Your task to perform on an android device: Open the calendar and show me this week's events? Image 0: 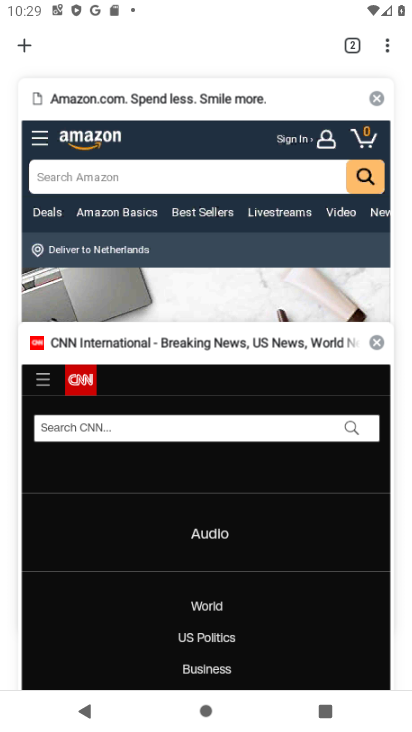
Step 0: press home button
Your task to perform on an android device: Open the calendar and show me this week's events? Image 1: 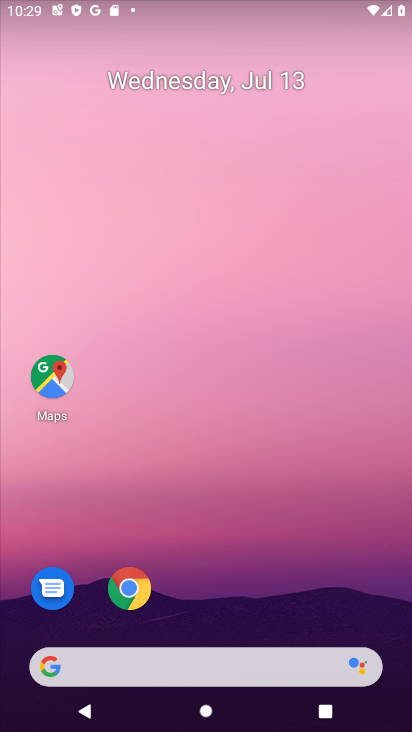
Step 1: drag from (241, 604) to (240, 227)
Your task to perform on an android device: Open the calendar and show me this week's events? Image 2: 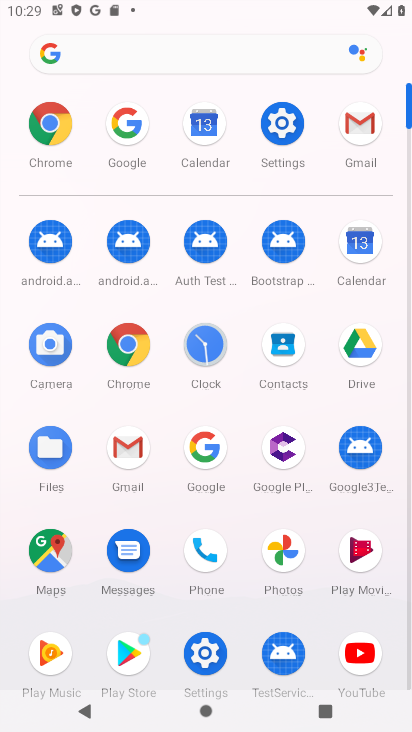
Step 2: click (360, 237)
Your task to perform on an android device: Open the calendar and show me this week's events? Image 3: 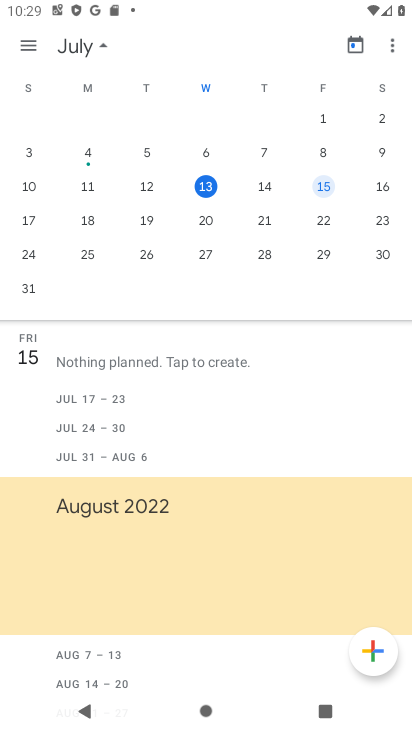
Step 3: task complete